Your task to perform on an android device: turn vacation reply on in the gmail app Image 0: 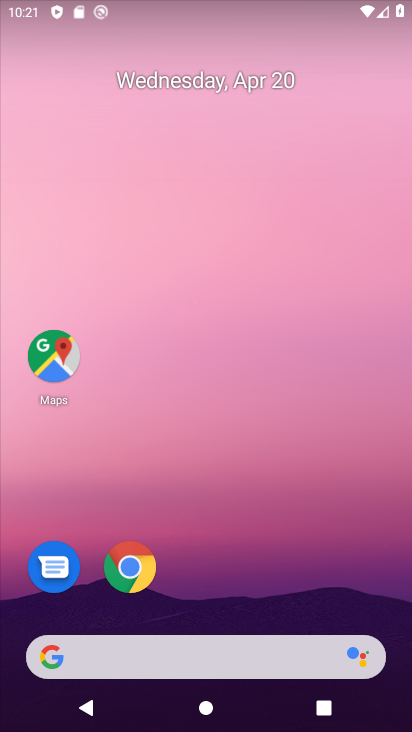
Step 0: drag from (255, 569) to (255, 42)
Your task to perform on an android device: turn vacation reply on in the gmail app Image 1: 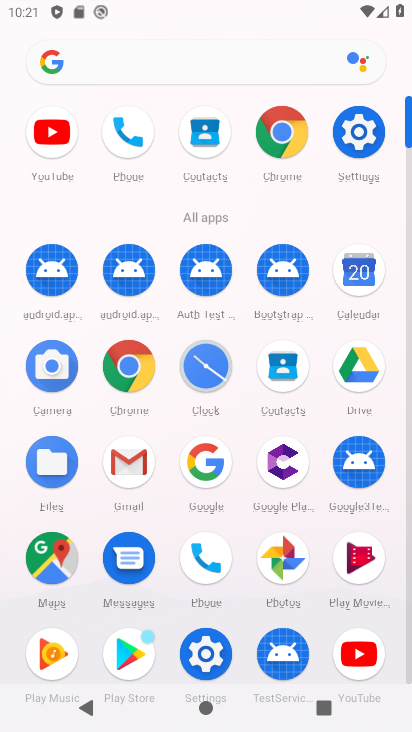
Step 1: click (127, 471)
Your task to perform on an android device: turn vacation reply on in the gmail app Image 2: 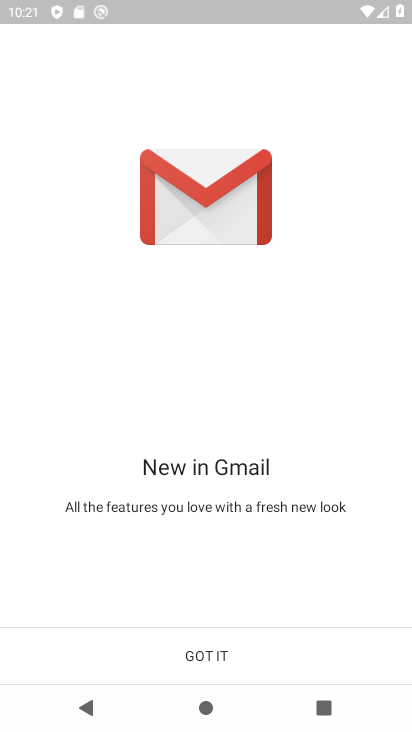
Step 2: click (194, 652)
Your task to perform on an android device: turn vacation reply on in the gmail app Image 3: 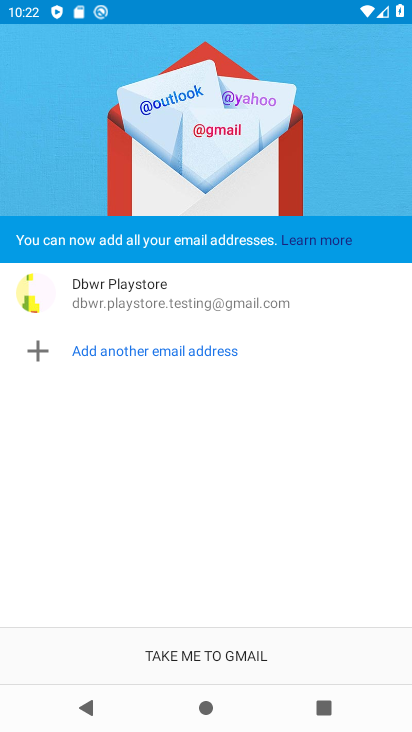
Step 3: click (194, 652)
Your task to perform on an android device: turn vacation reply on in the gmail app Image 4: 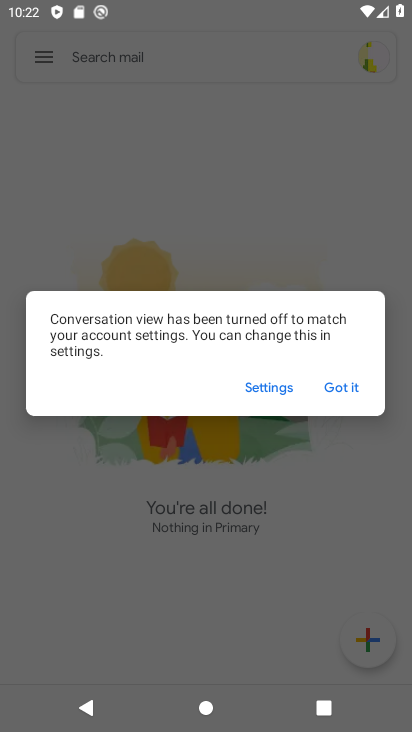
Step 4: click (349, 387)
Your task to perform on an android device: turn vacation reply on in the gmail app Image 5: 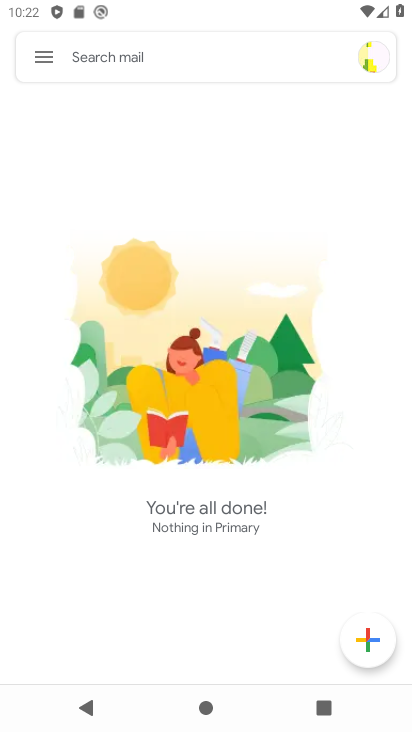
Step 5: click (43, 60)
Your task to perform on an android device: turn vacation reply on in the gmail app Image 6: 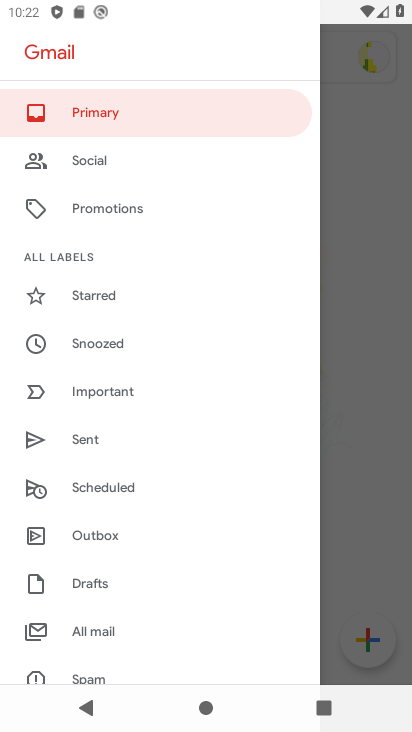
Step 6: drag from (121, 428) to (178, 352)
Your task to perform on an android device: turn vacation reply on in the gmail app Image 7: 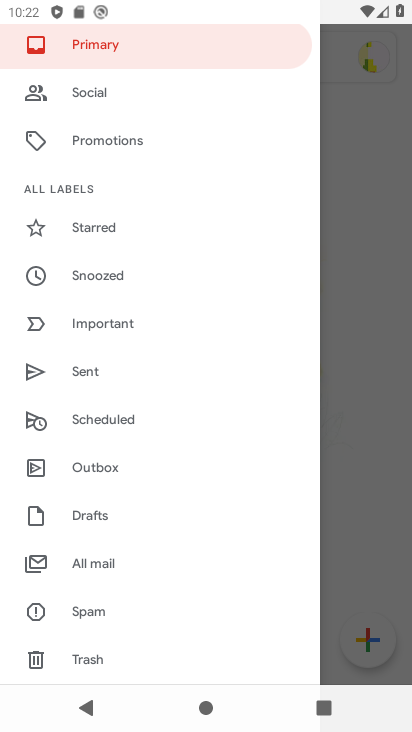
Step 7: drag from (150, 485) to (181, 403)
Your task to perform on an android device: turn vacation reply on in the gmail app Image 8: 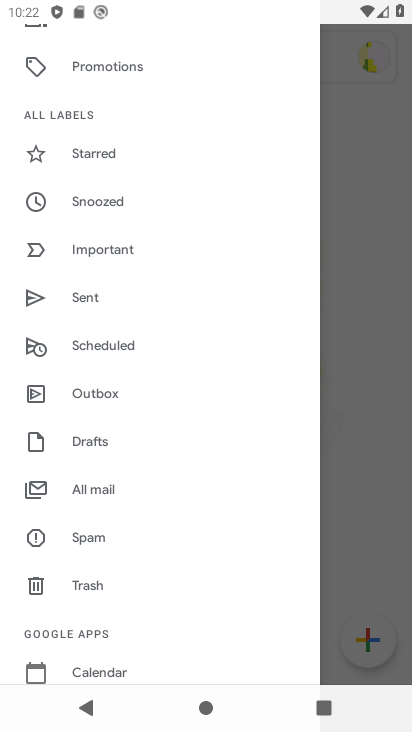
Step 8: drag from (157, 537) to (190, 464)
Your task to perform on an android device: turn vacation reply on in the gmail app Image 9: 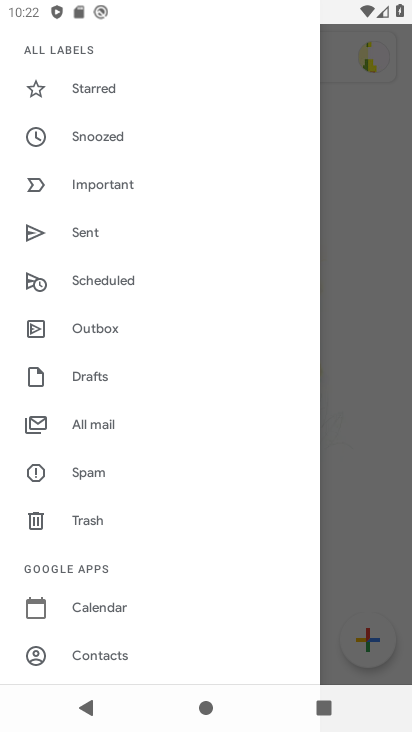
Step 9: drag from (139, 534) to (167, 458)
Your task to perform on an android device: turn vacation reply on in the gmail app Image 10: 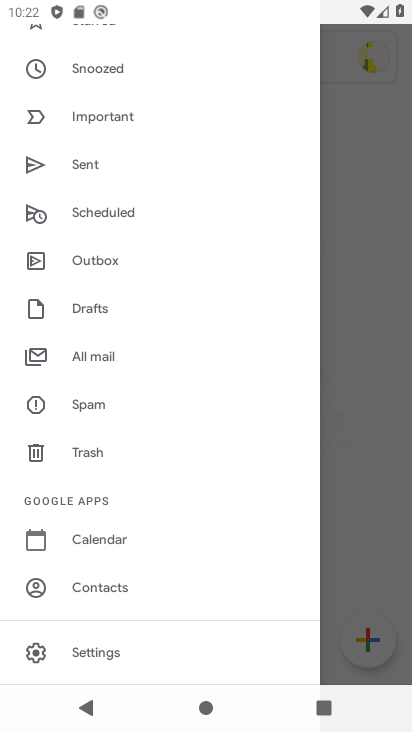
Step 10: drag from (143, 578) to (179, 505)
Your task to perform on an android device: turn vacation reply on in the gmail app Image 11: 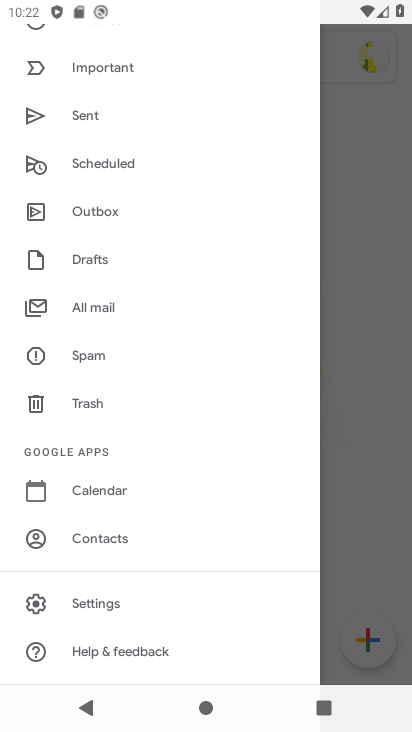
Step 11: click (100, 601)
Your task to perform on an android device: turn vacation reply on in the gmail app Image 12: 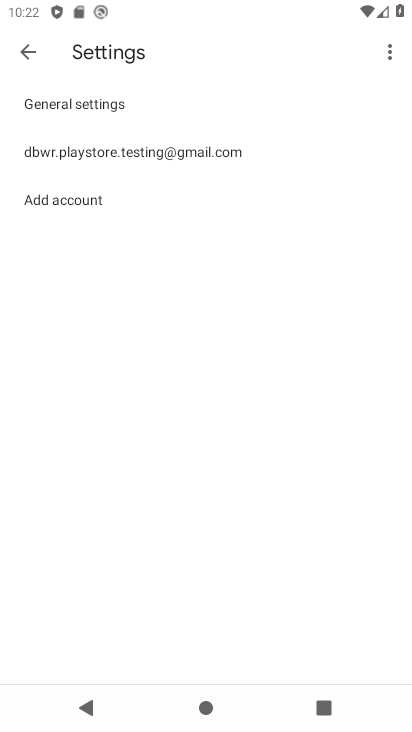
Step 12: click (161, 147)
Your task to perform on an android device: turn vacation reply on in the gmail app Image 13: 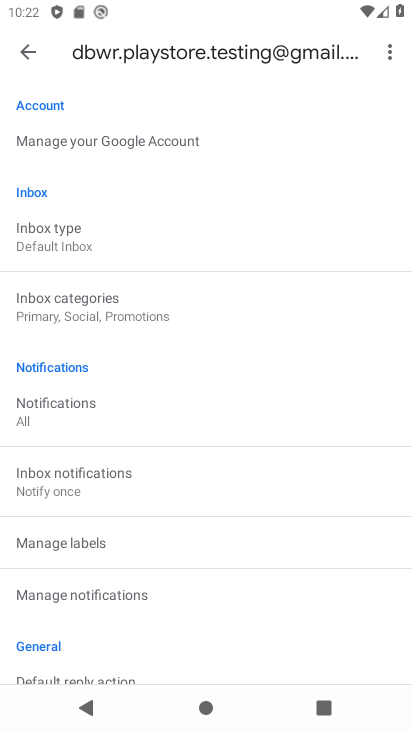
Step 13: drag from (129, 410) to (149, 342)
Your task to perform on an android device: turn vacation reply on in the gmail app Image 14: 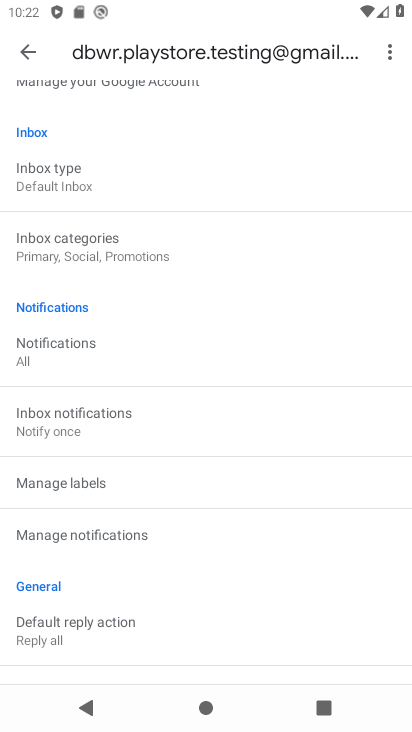
Step 14: drag from (137, 548) to (181, 473)
Your task to perform on an android device: turn vacation reply on in the gmail app Image 15: 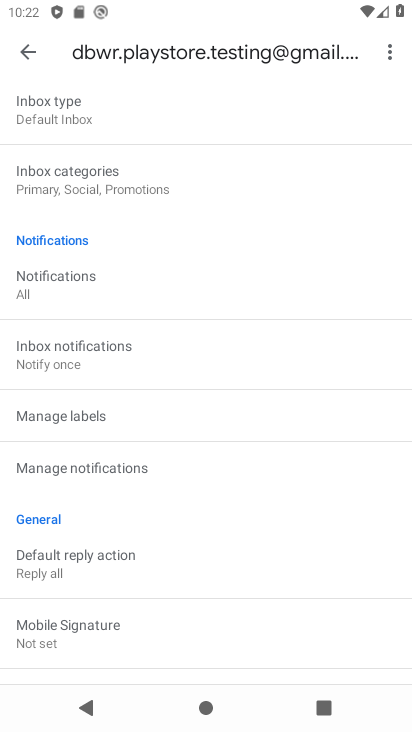
Step 15: drag from (134, 522) to (177, 446)
Your task to perform on an android device: turn vacation reply on in the gmail app Image 16: 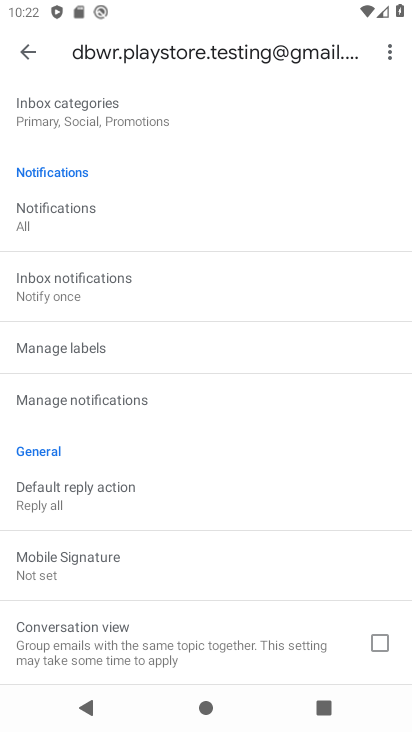
Step 16: drag from (134, 555) to (157, 457)
Your task to perform on an android device: turn vacation reply on in the gmail app Image 17: 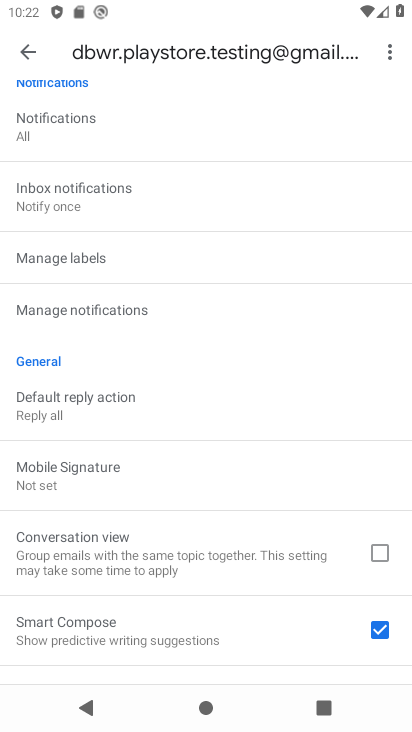
Step 17: drag from (150, 610) to (176, 484)
Your task to perform on an android device: turn vacation reply on in the gmail app Image 18: 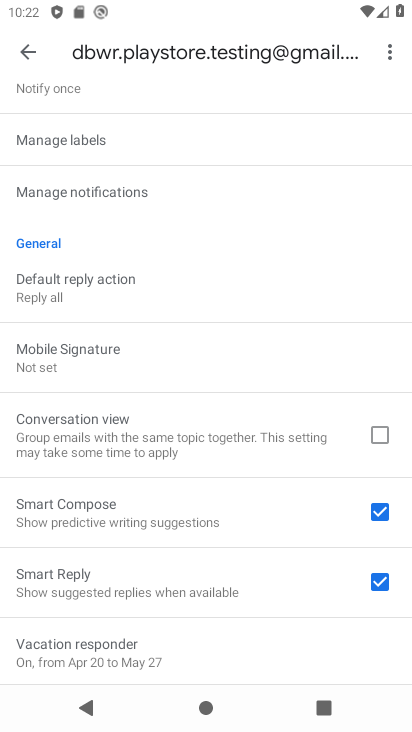
Step 18: drag from (144, 611) to (186, 481)
Your task to perform on an android device: turn vacation reply on in the gmail app Image 19: 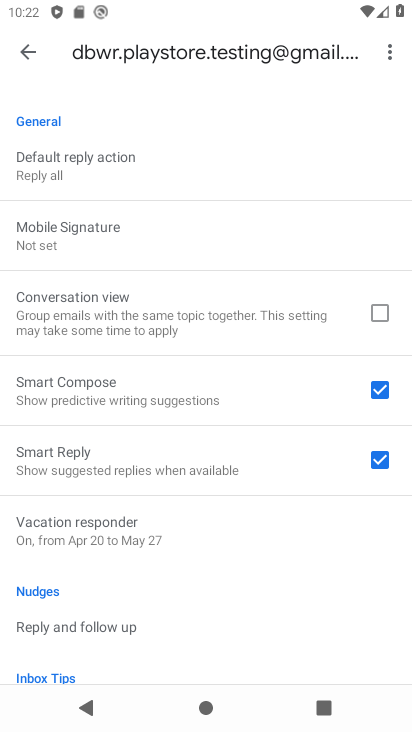
Step 19: click (124, 535)
Your task to perform on an android device: turn vacation reply on in the gmail app Image 20: 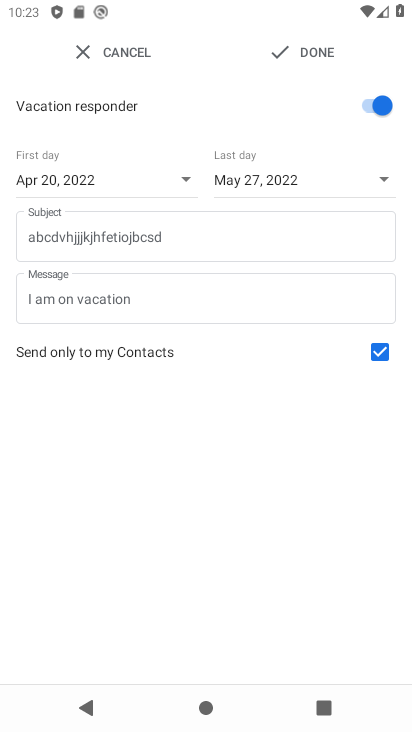
Step 20: task complete